Your task to perform on an android device: Do I have any events today? Image 0: 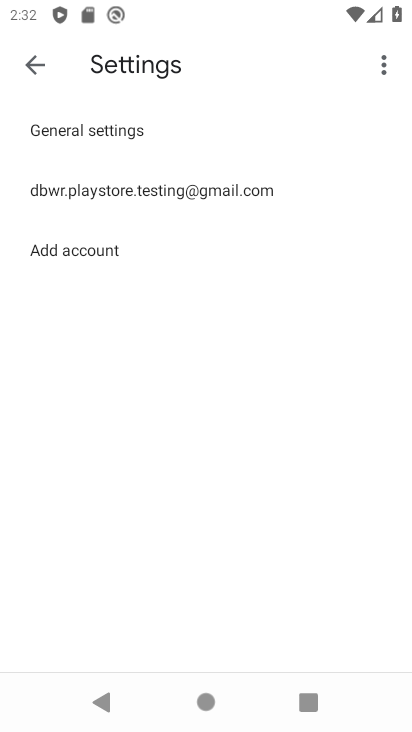
Step 0: press home button
Your task to perform on an android device: Do I have any events today? Image 1: 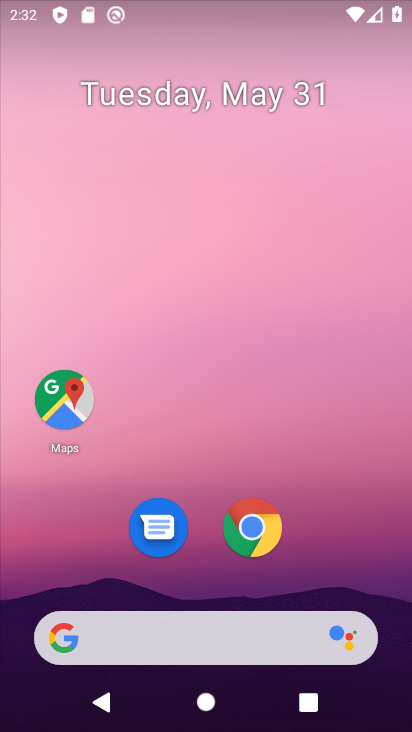
Step 1: drag from (258, 608) to (218, 16)
Your task to perform on an android device: Do I have any events today? Image 2: 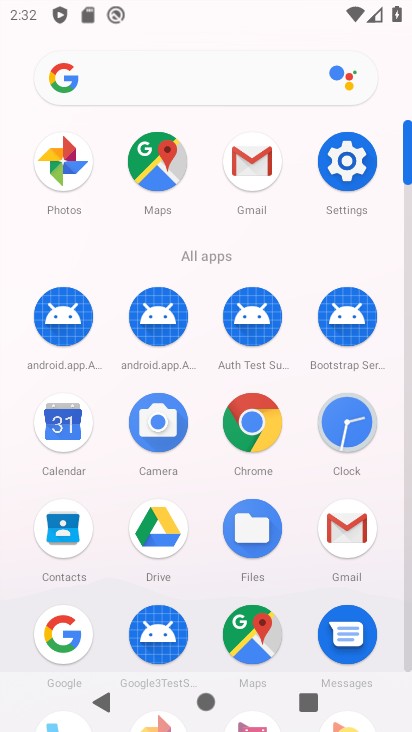
Step 2: click (62, 422)
Your task to perform on an android device: Do I have any events today? Image 3: 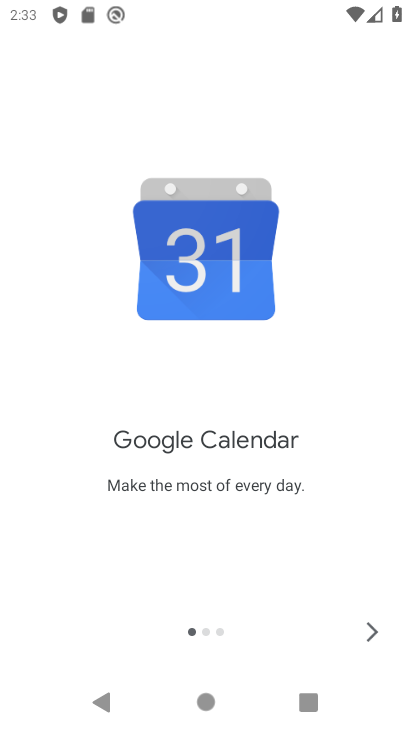
Step 3: click (380, 641)
Your task to perform on an android device: Do I have any events today? Image 4: 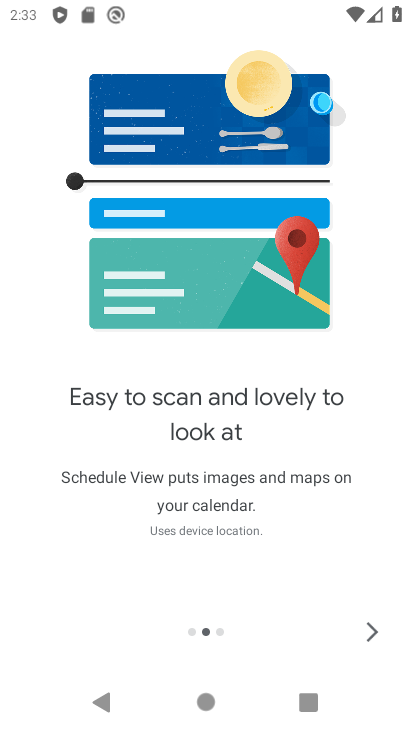
Step 4: click (380, 641)
Your task to perform on an android device: Do I have any events today? Image 5: 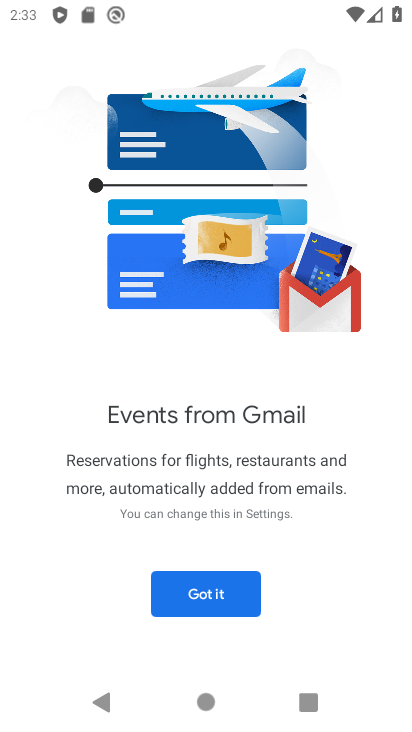
Step 5: click (220, 599)
Your task to perform on an android device: Do I have any events today? Image 6: 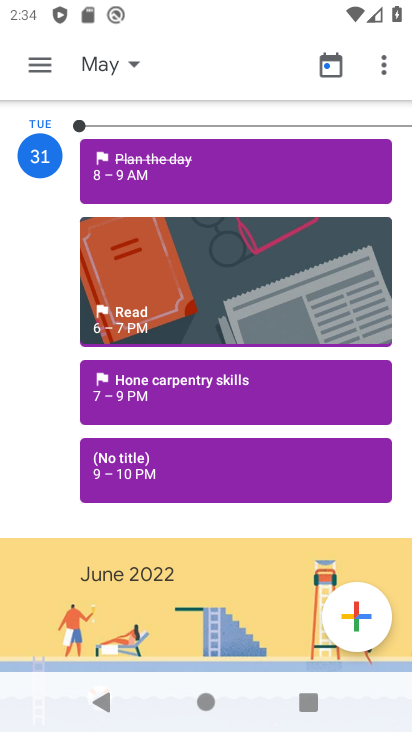
Step 6: task complete